Your task to perform on an android device: turn on notifications settings in the gmail app Image 0: 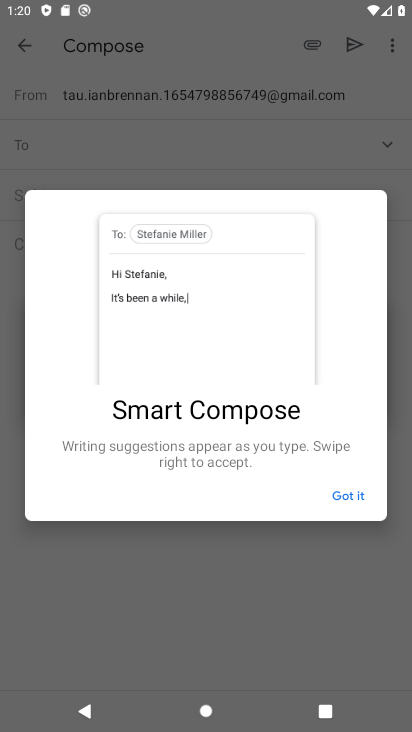
Step 0: press home button
Your task to perform on an android device: turn on notifications settings in the gmail app Image 1: 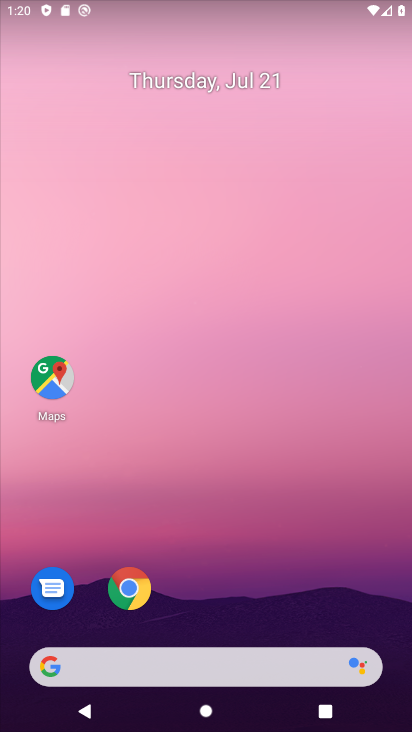
Step 1: drag from (211, 640) to (184, 21)
Your task to perform on an android device: turn on notifications settings in the gmail app Image 2: 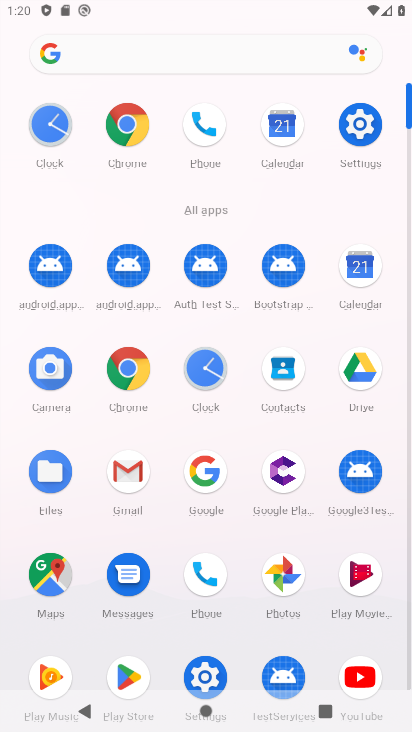
Step 2: click (133, 477)
Your task to perform on an android device: turn on notifications settings in the gmail app Image 3: 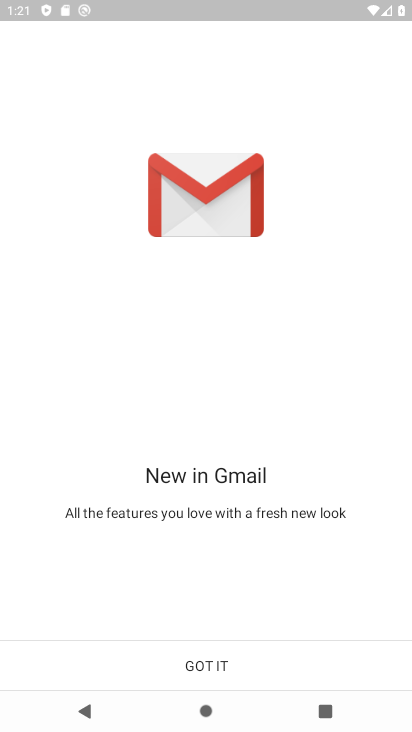
Step 3: click (212, 666)
Your task to perform on an android device: turn on notifications settings in the gmail app Image 4: 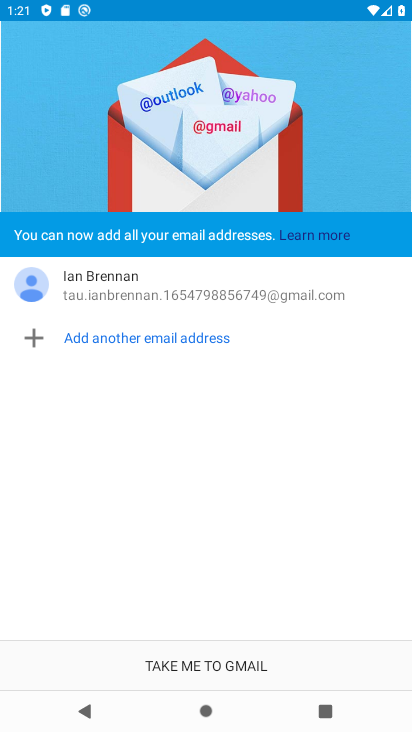
Step 4: click (212, 664)
Your task to perform on an android device: turn on notifications settings in the gmail app Image 5: 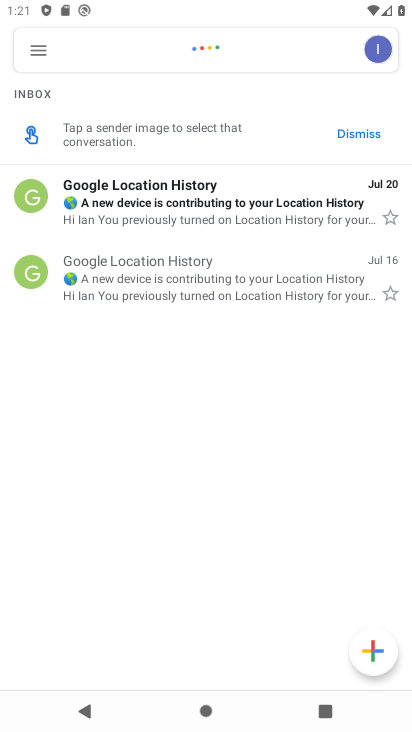
Step 5: click (23, 48)
Your task to perform on an android device: turn on notifications settings in the gmail app Image 6: 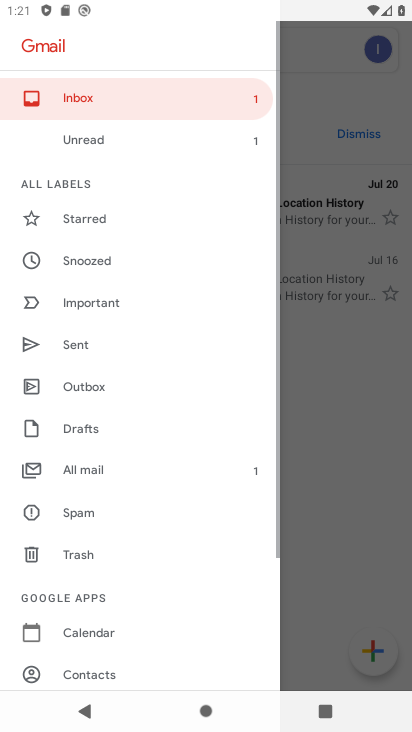
Step 6: drag from (99, 629) to (158, 92)
Your task to perform on an android device: turn on notifications settings in the gmail app Image 7: 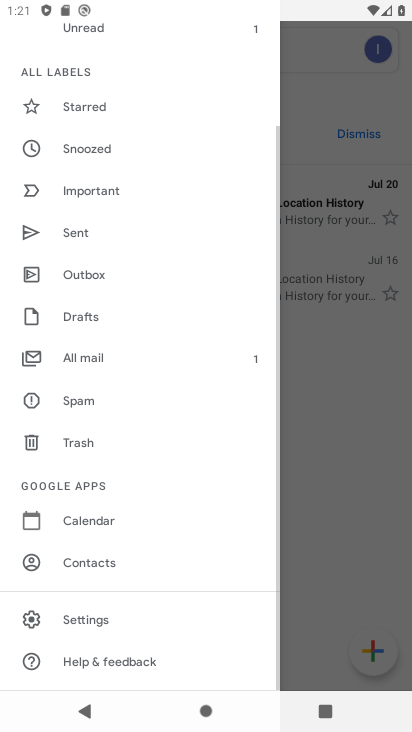
Step 7: click (73, 617)
Your task to perform on an android device: turn on notifications settings in the gmail app Image 8: 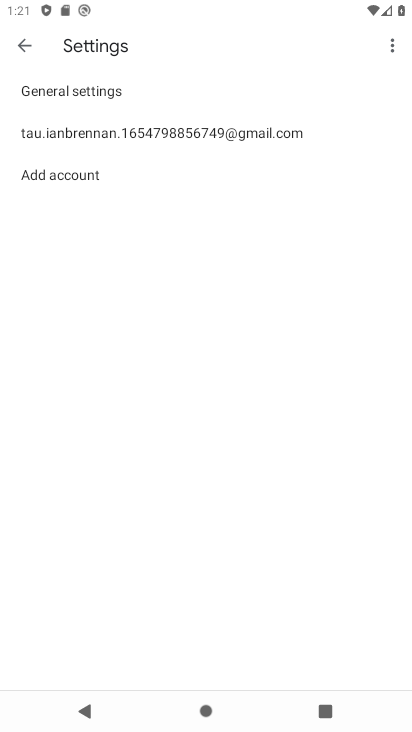
Step 8: click (68, 92)
Your task to perform on an android device: turn on notifications settings in the gmail app Image 9: 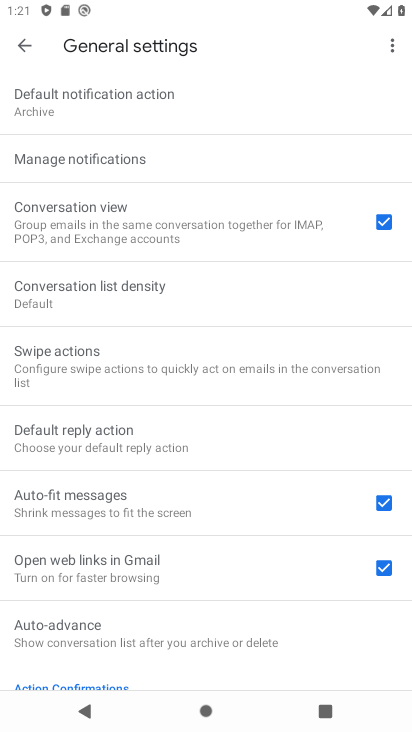
Step 9: click (96, 148)
Your task to perform on an android device: turn on notifications settings in the gmail app Image 10: 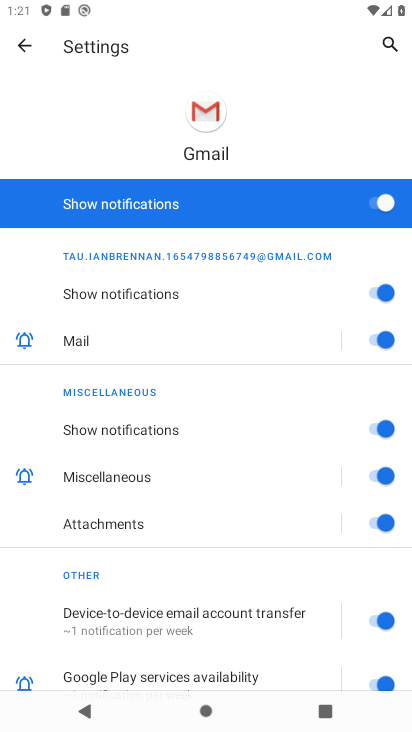
Step 10: task complete